Your task to perform on an android device: turn on the 24-hour format for clock Image 0: 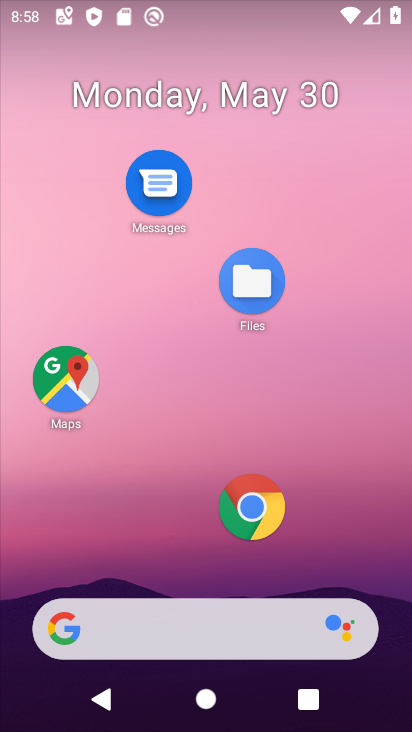
Step 0: drag from (150, 579) to (184, 162)
Your task to perform on an android device: turn on the 24-hour format for clock Image 1: 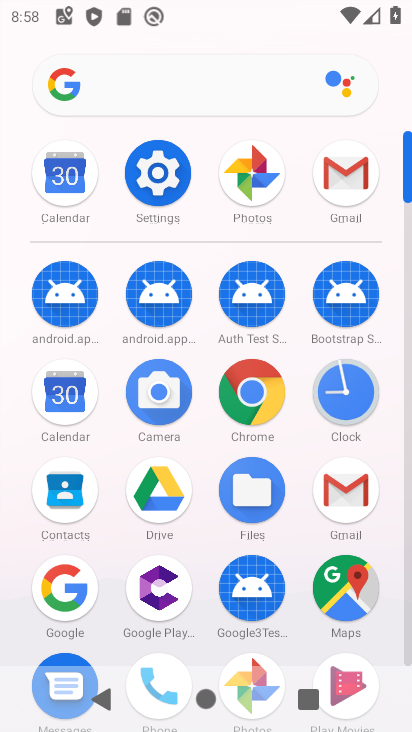
Step 1: click (171, 186)
Your task to perform on an android device: turn on the 24-hour format for clock Image 2: 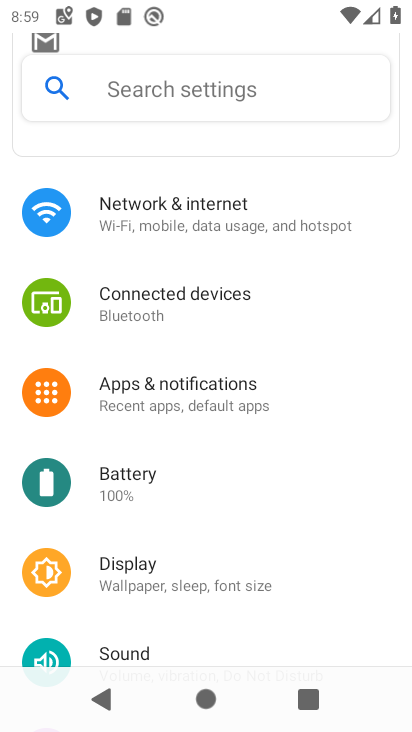
Step 2: drag from (159, 515) to (203, 360)
Your task to perform on an android device: turn on the 24-hour format for clock Image 3: 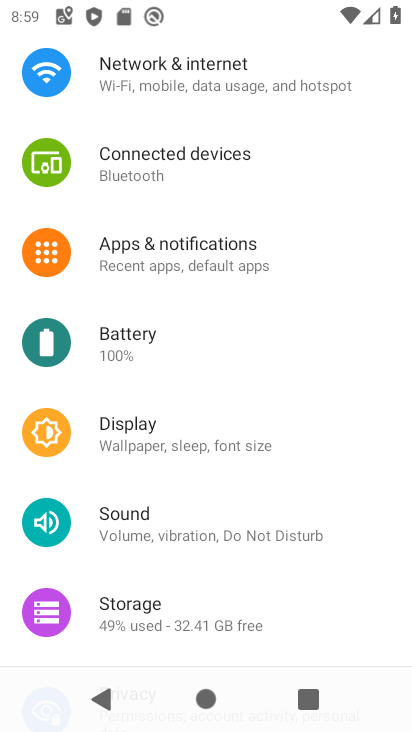
Step 3: drag from (178, 568) to (181, 391)
Your task to perform on an android device: turn on the 24-hour format for clock Image 4: 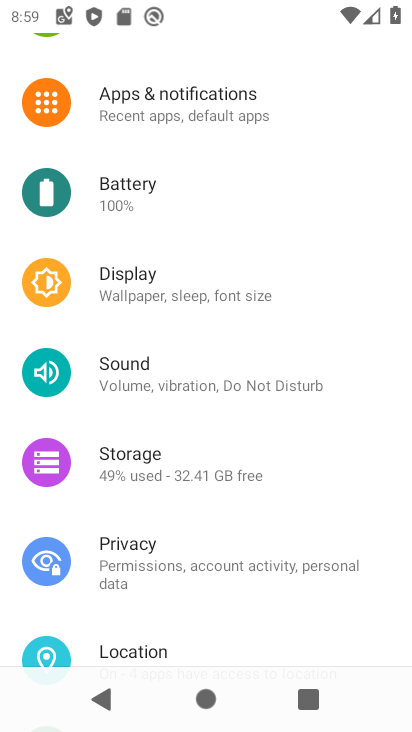
Step 4: drag from (182, 590) to (206, 195)
Your task to perform on an android device: turn on the 24-hour format for clock Image 5: 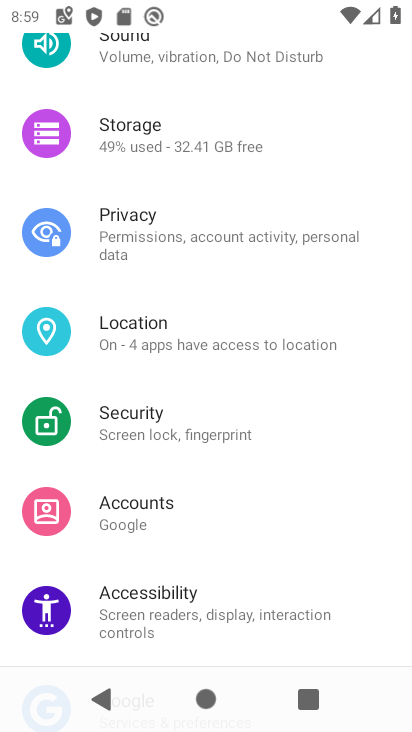
Step 5: drag from (222, 524) to (225, 294)
Your task to perform on an android device: turn on the 24-hour format for clock Image 6: 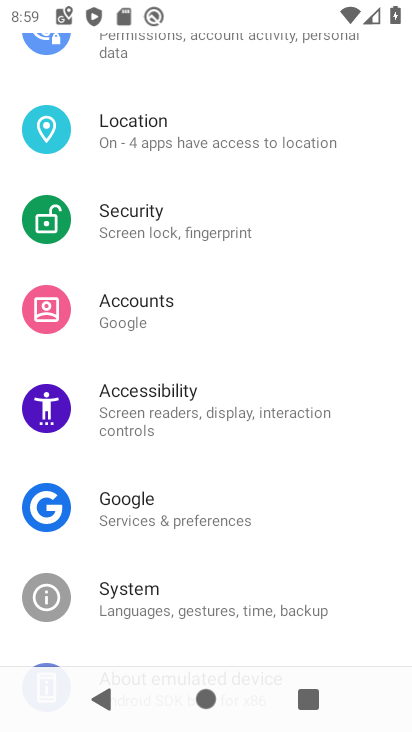
Step 6: click (154, 615)
Your task to perform on an android device: turn on the 24-hour format for clock Image 7: 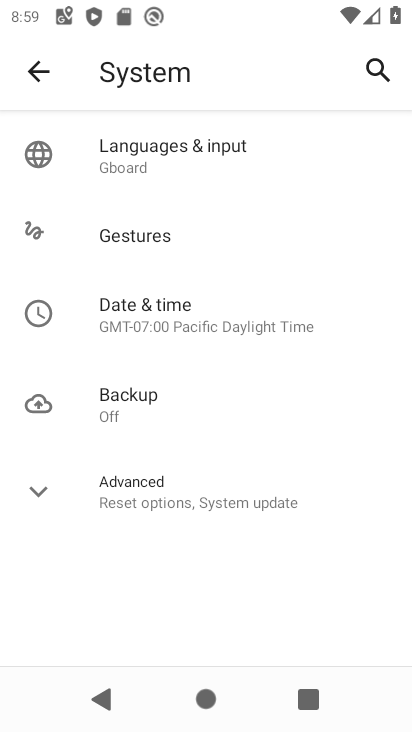
Step 7: click (183, 328)
Your task to perform on an android device: turn on the 24-hour format for clock Image 8: 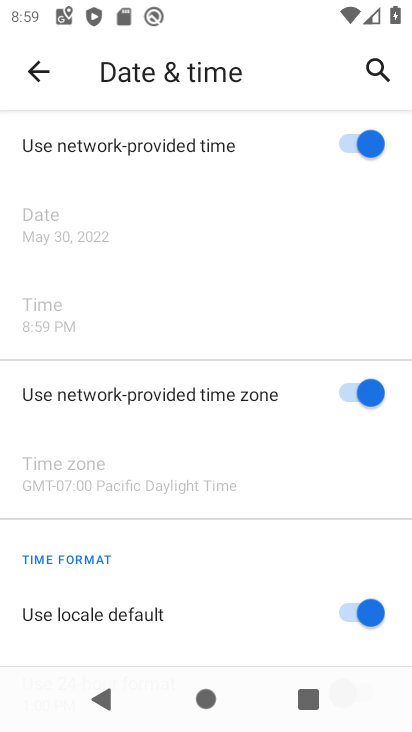
Step 8: drag from (203, 512) to (203, 341)
Your task to perform on an android device: turn on the 24-hour format for clock Image 9: 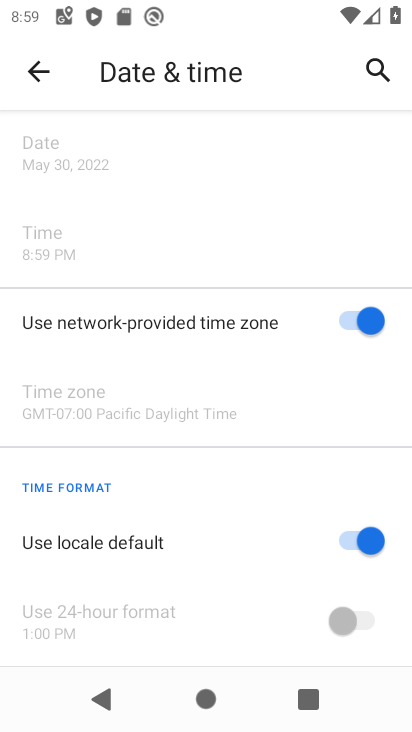
Step 9: click (342, 541)
Your task to perform on an android device: turn on the 24-hour format for clock Image 10: 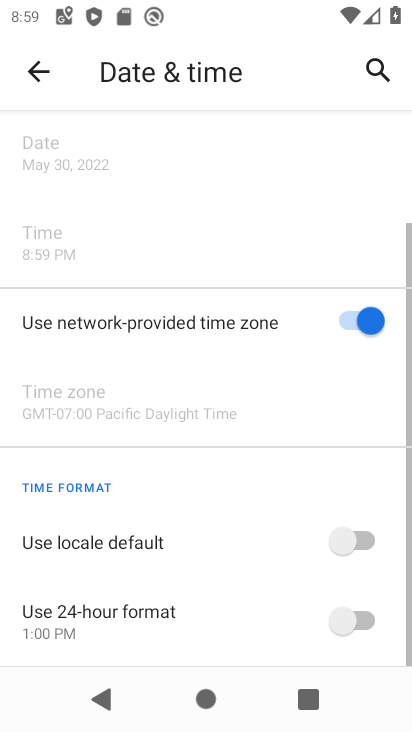
Step 10: click (377, 612)
Your task to perform on an android device: turn on the 24-hour format for clock Image 11: 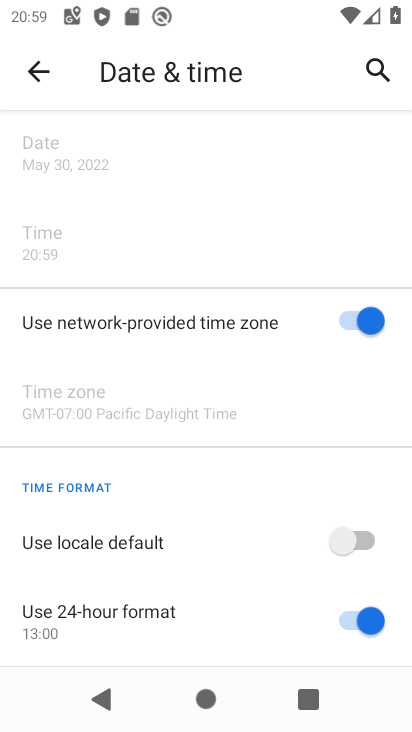
Step 11: task complete